Your task to perform on an android device: check data usage Image 0: 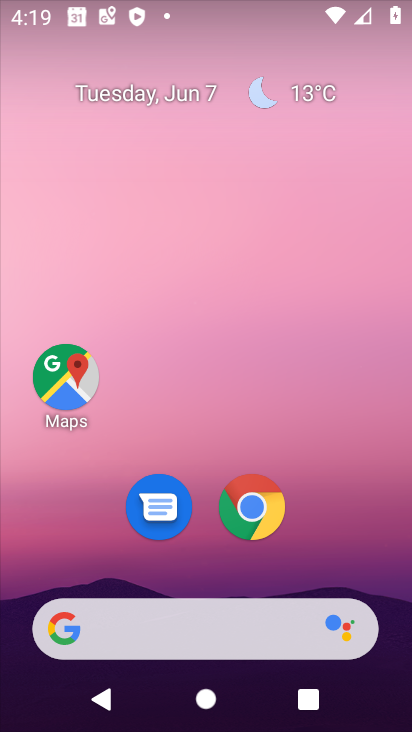
Step 0: drag from (330, 447) to (234, 63)
Your task to perform on an android device: check data usage Image 1: 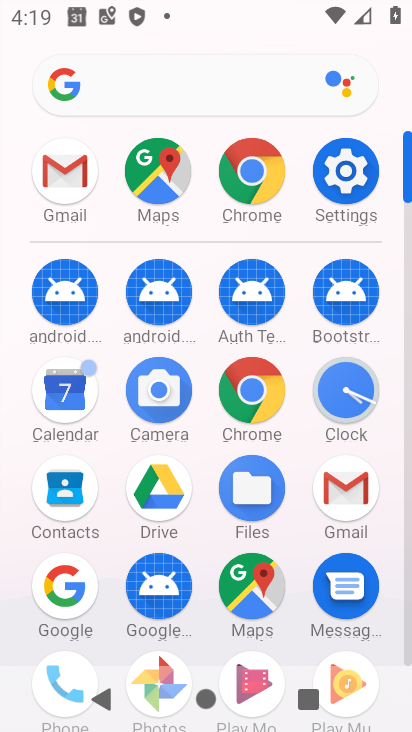
Step 1: drag from (3, 552) to (15, 225)
Your task to perform on an android device: check data usage Image 2: 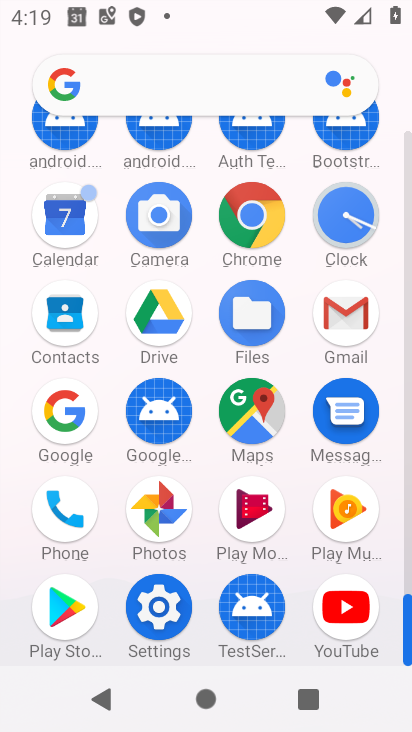
Step 2: click (148, 608)
Your task to perform on an android device: check data usage Image 3: 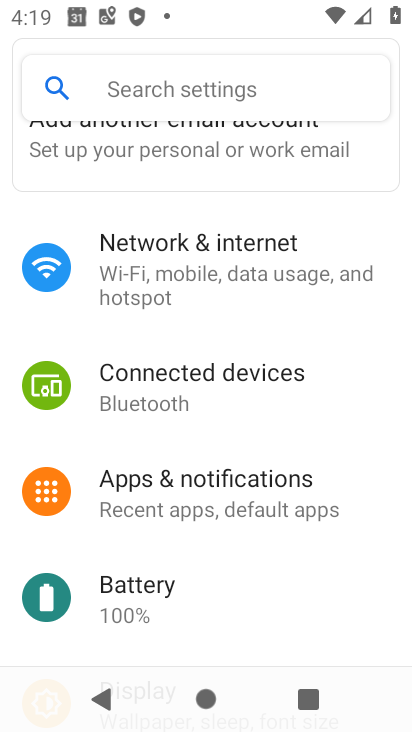
Step 3: drag from (275, 267) to (270, 594)
Your task to perform on an android device: check data usage Image 4: 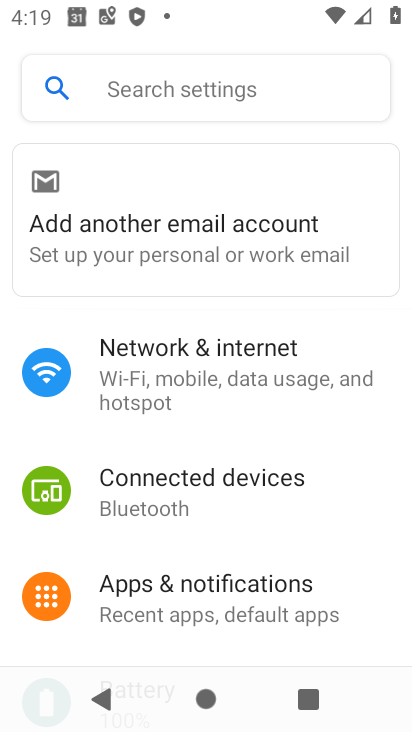
Step 4: click (241, 375)
Your task to perform on an android device: check data usage Image 5: 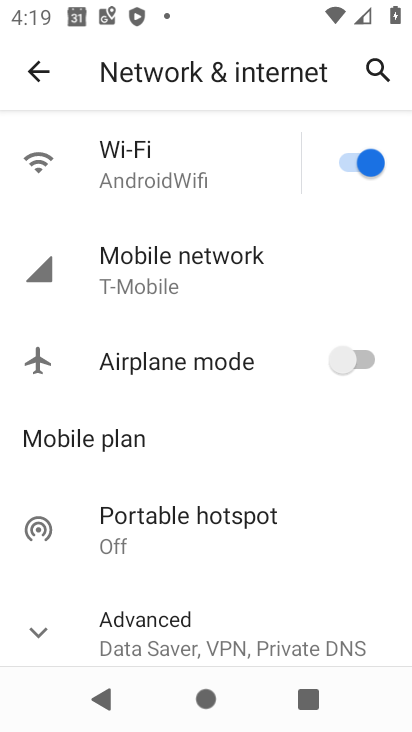
Step 5: click (47, 626)
Your task to perform on an android device: check data usage Image 6: 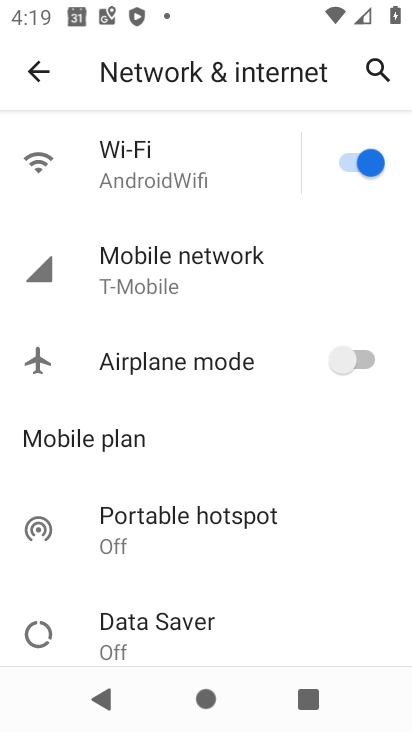
Step 6: click (199, 267)
Your task to perform on an android device: check data usage Image 7: 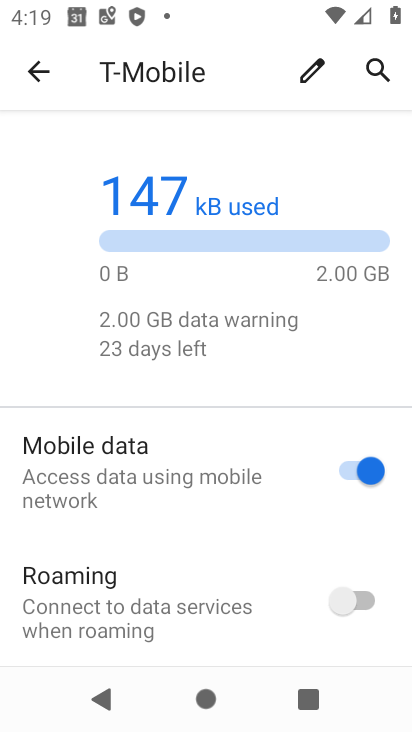
Step 7: task complete